Your task to perform on an android device: Go to Android settings Image 0: 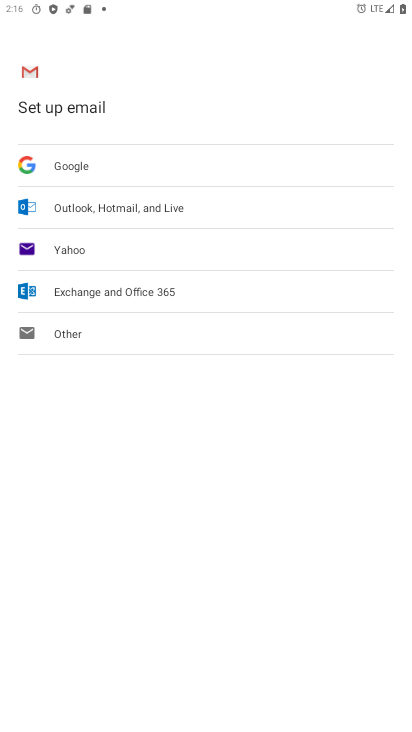
Step 0: press home button
Your task to perform on an android device: Go to Android settings Image 1: 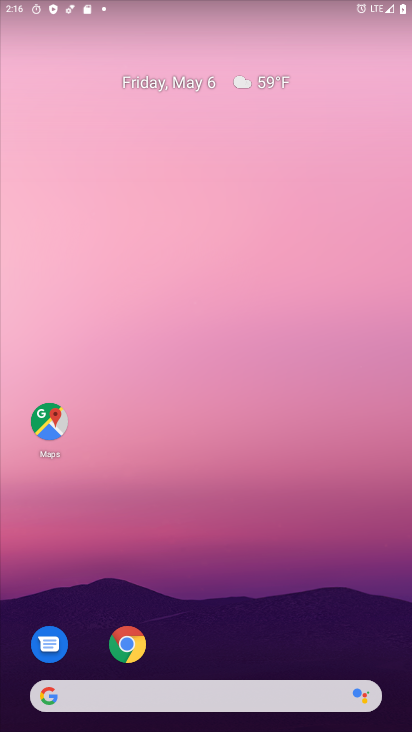
Step 1: drag from (236, 622) to (227, 204)
Your task to perform on an android device: Go to Android settings Image 2: 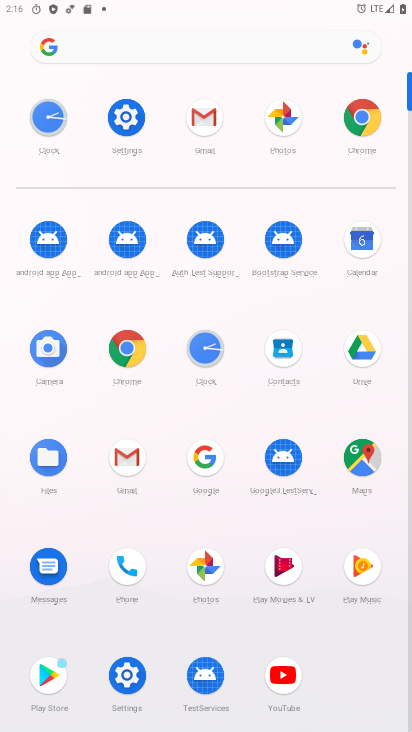
Step 2: click (124, 132)
Your task to perform on an android device: Go to Android settings Image 3: 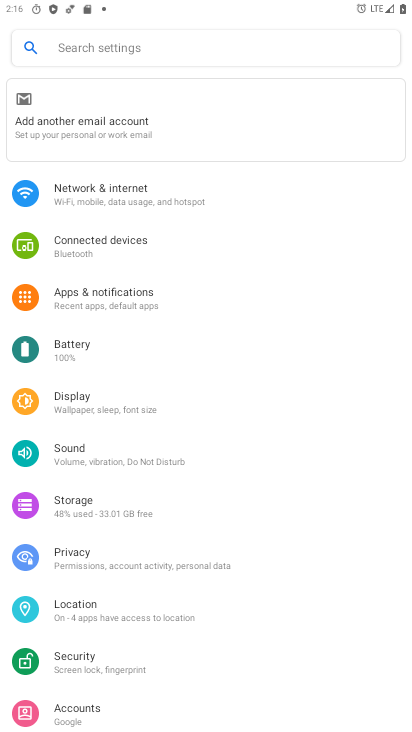
Step 3: task complete